Your task to perform on an android device: search for starred emails in the gmail app Image 0: 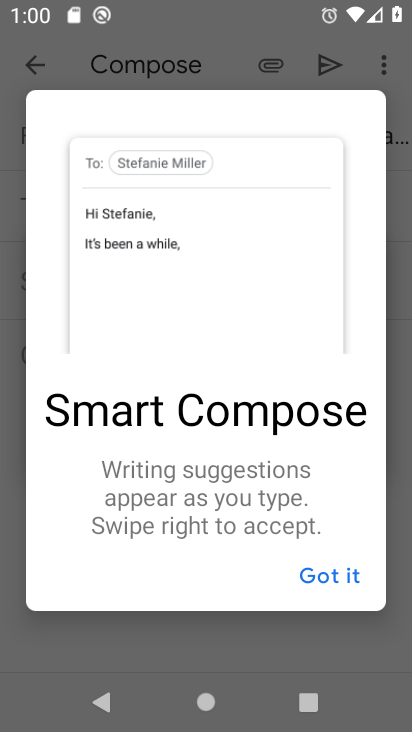
Step 0: press home button
Your task to perform on an android device: search for starred emails in the gmail app Image 1: 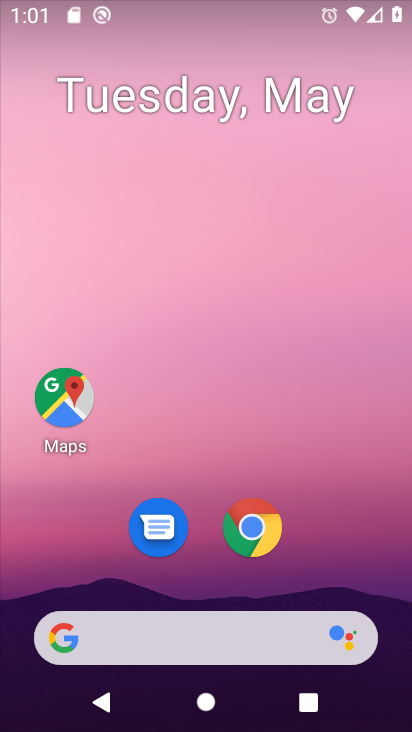
Step 1: drag from (243, 701) to (262, 19)
Your task to perform on an android device: search for starred emails in the gmail app Image 2: 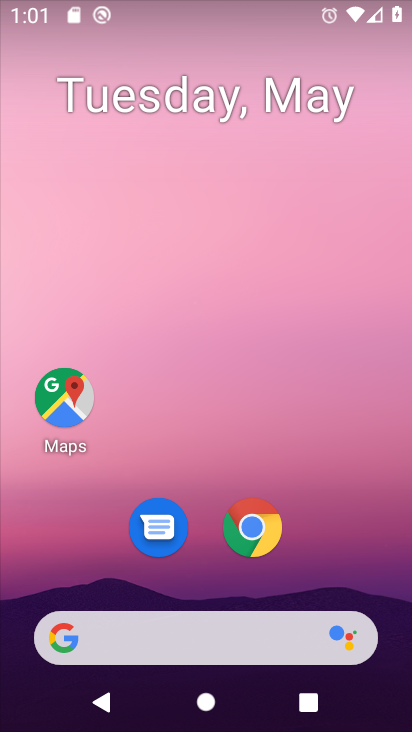
Step 2: drag from (272, 693) to (272, 3)
Your task to perform on an android device: search for starred emails in the gmail app Image 3: 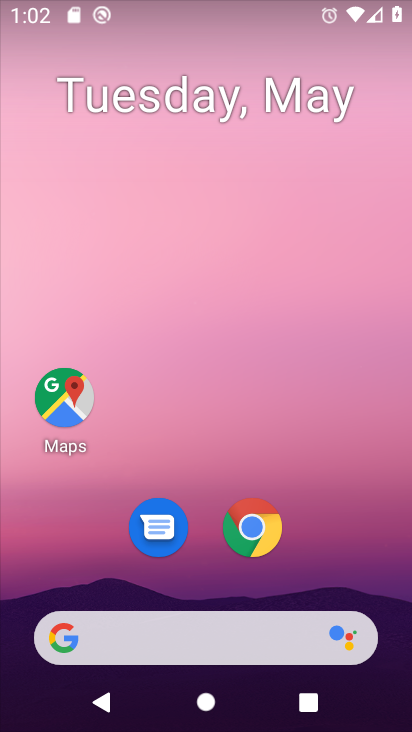
Step 3: drag from (270, 701) to (299, 19)
Your task to perform on an android device: search for starred emails in the gmail app Image 4: 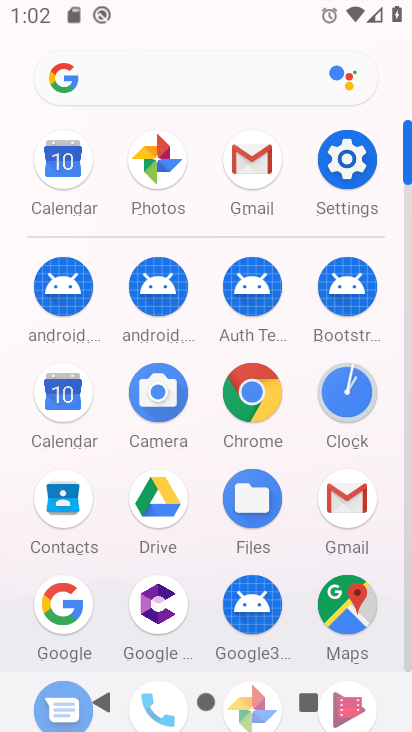
Step 4: click (352, 496)
Your task to perform on an android device: search for starred emails in the gmail app Image 5: 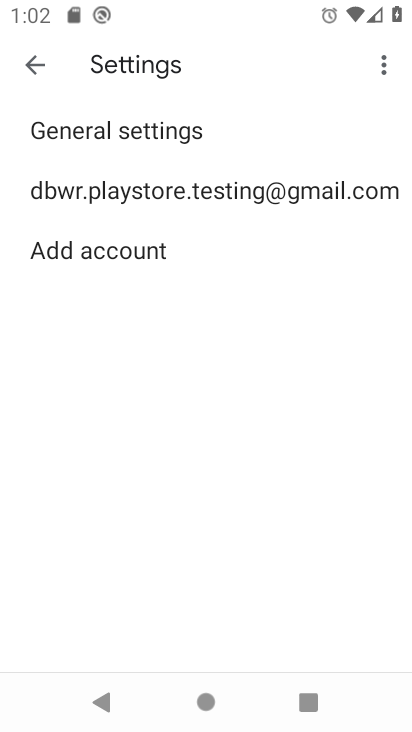
Step 5: click (30, 56)
Your task to perform on an android device: search for starred emails in the gmail app Image 6: 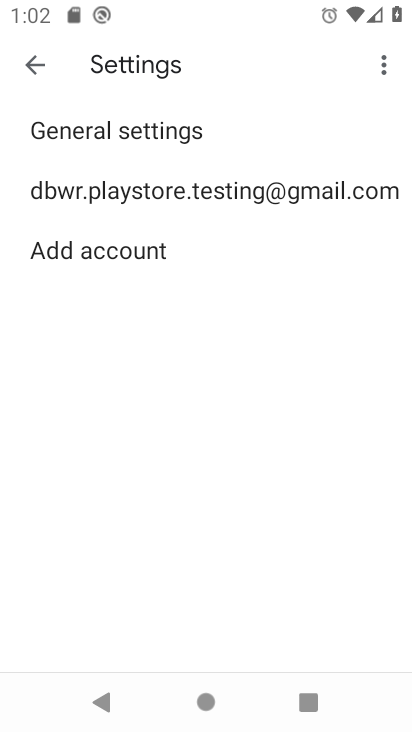
Step 6: click (40, 61)
Your task to perform on an android device: search for starred emails in the gmail app Image 7: 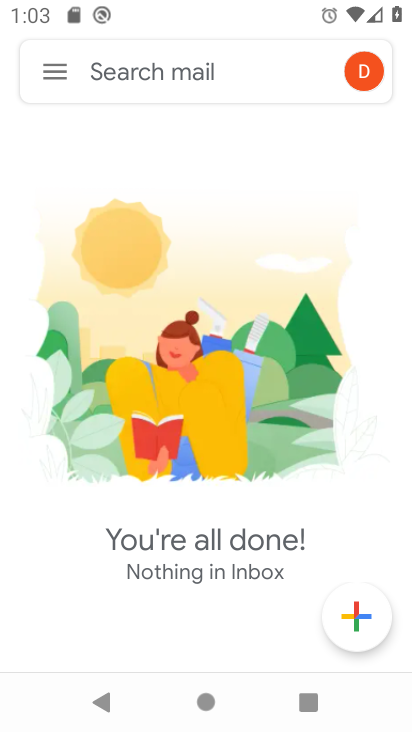
Step 7: click (60, 70)
Your task to perform on an android device: search for starred emails in the gmail app Image 8: 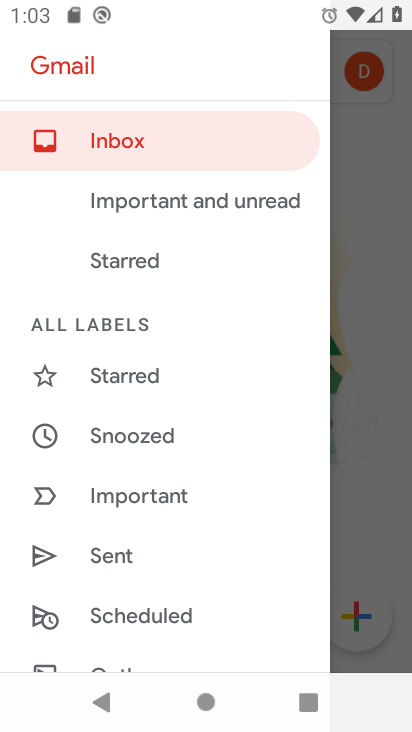
Step 8: click (173, 369)
Your task to perform on an android device: search for starred emails in the gmail app Image 9: 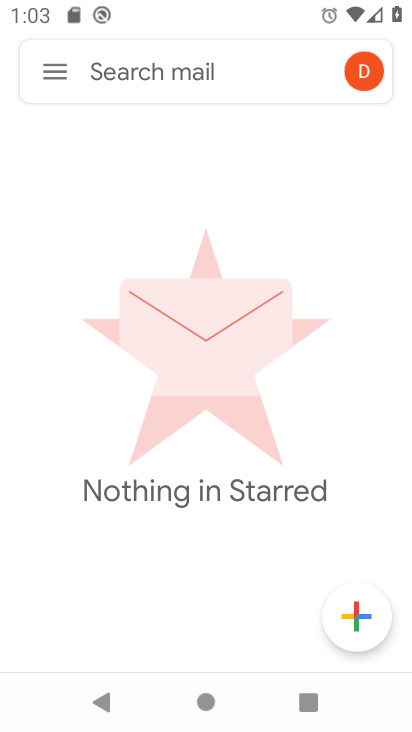
Step 9: task complete